Your task to perform on an android device: Turn off the flashlight Image 0: 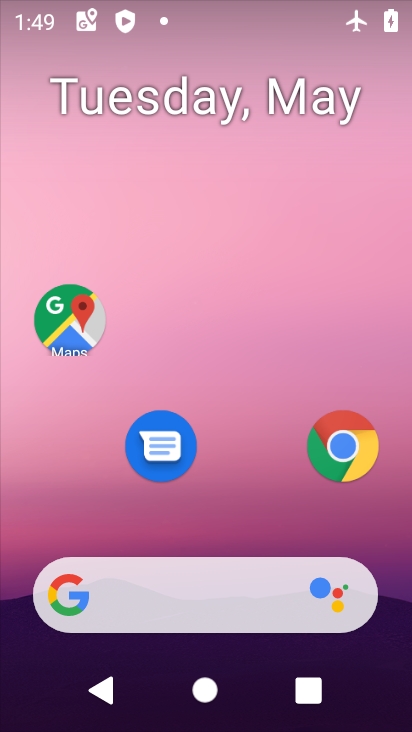
Step 0: drag from (231, 546) to (163, 10)
Your task to perform on an android device: Turn off the flashlight Image 1: 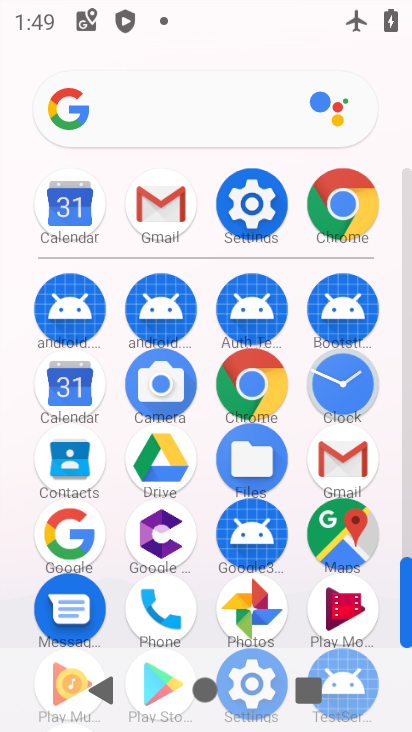
Step 1: click (220, 210)
Your task to perform on an android device: Turn off the flashlight Image 2: 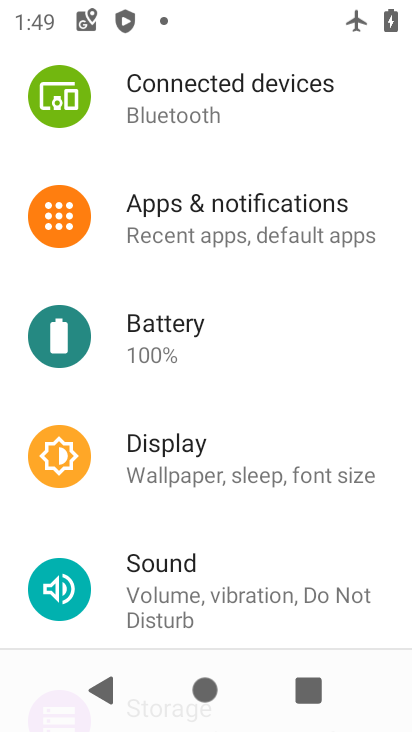
Step 2: task complete